Your task to perform on an android device: Open display settings Image 0: 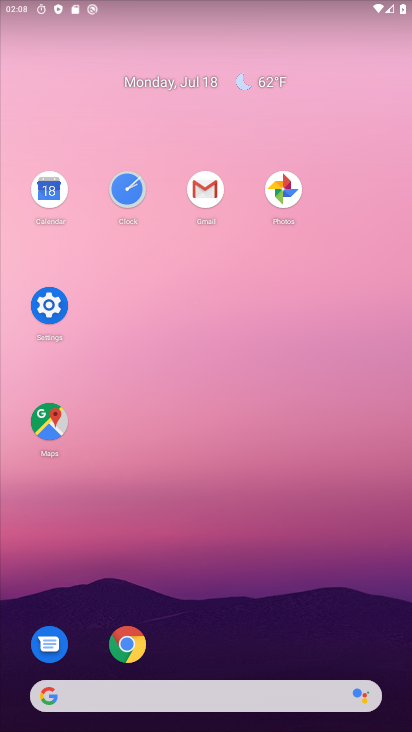
Step 0: click (35, 305)
Your task to perform on an android device: Open display settings Image 1: 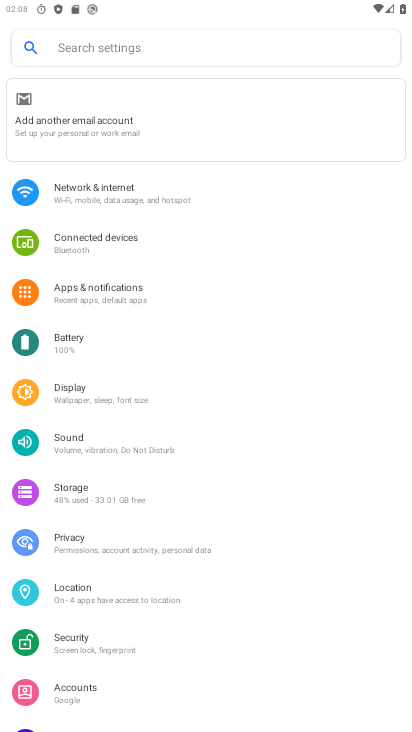
Step 1: click (126, 398)
Your task to perform on an android device: Open display settings Image 2: 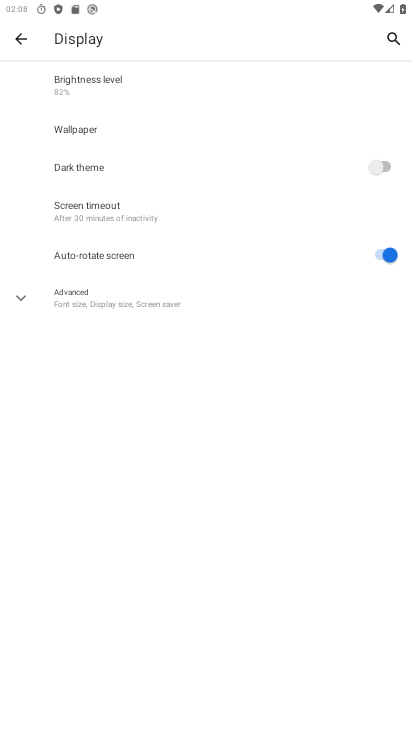
Step 2: task complete